Your task to perform on an android device: check storage Image 0: 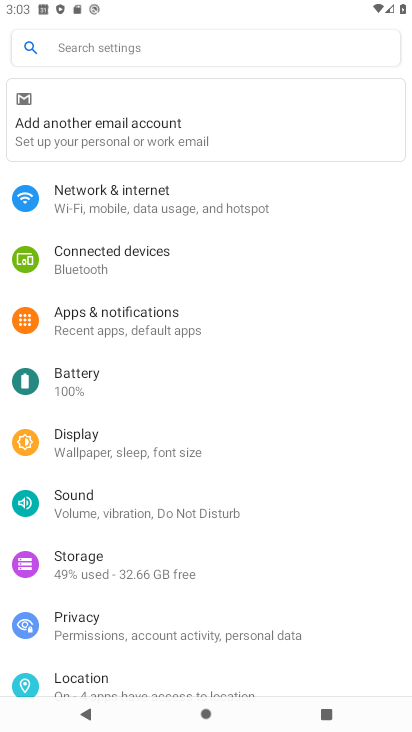
Step 0: click (101, 554)
Your task to perform on an android device: check storage Image 1: 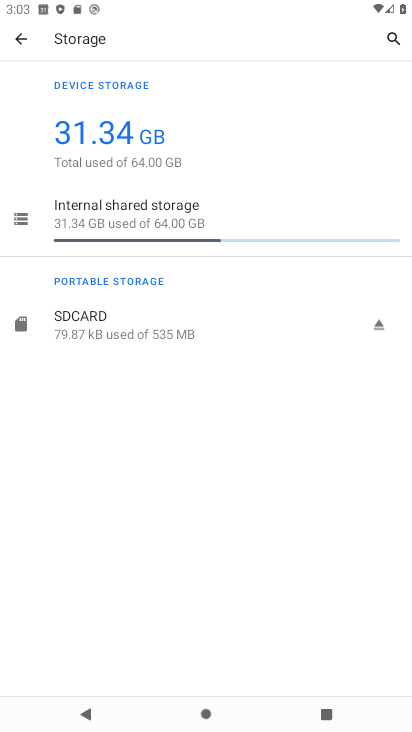
Step 1: task complete